Your task to perform on an android device: see tabs open on other devices in the chrome app Image 0: 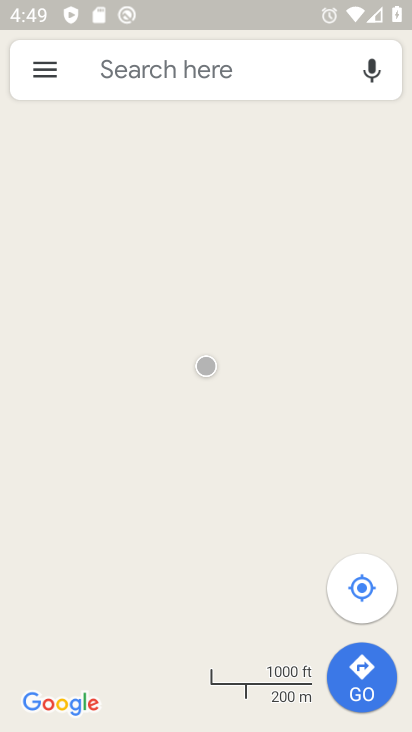
Step 0: press home button
Your task to perform on an android device: see tabs open on other devices in the chrome app Image 1: 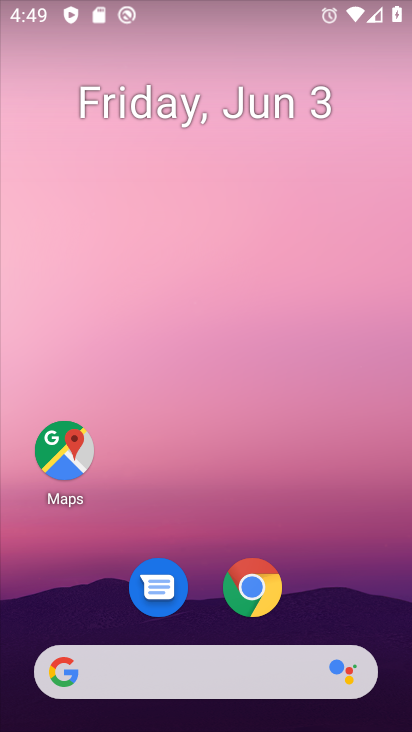
Step 1: click (272, 603)
Your task to perform on an android device: see tabs open on other devices in the chrome app Image 2: 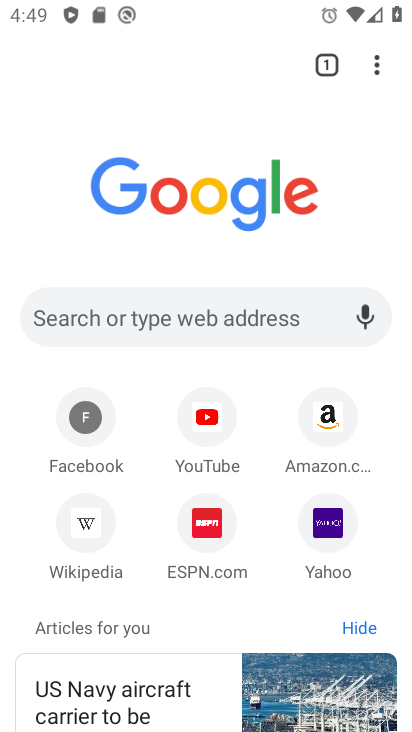
Step 2: click (379, 67)
Your task to perform on an android device: see tabs open on other devices in the chrome app Image 3: 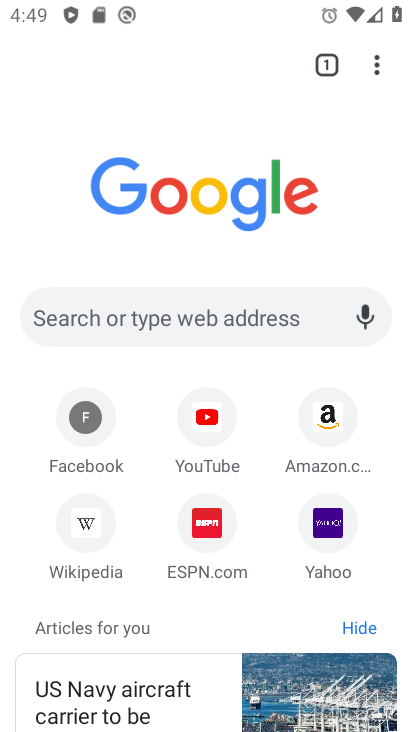
Step 3: click (373, 64)
Your task to perform on an android device: see tabs open on other devices in the chrome app Image 4: 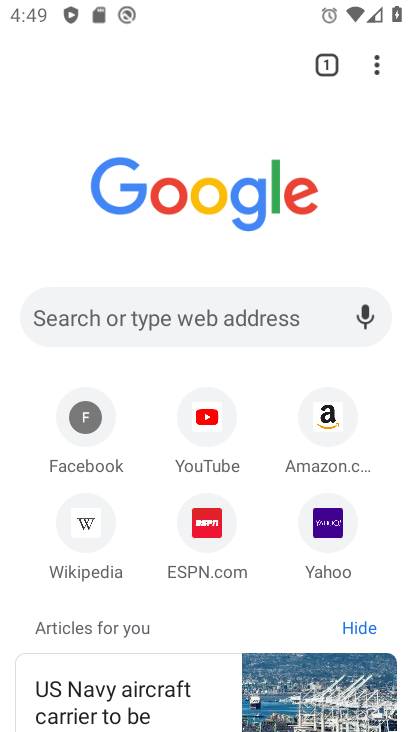
Step 4: click (372, 71)
Your task to perform on an android device: see tabs open on other devices in the chrome app Image 5: 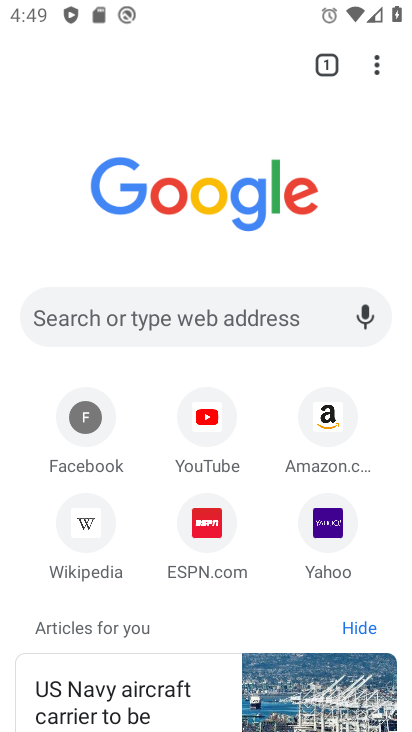
Step 5: drag from (379, 67) to (161, 311)
Your task to perform on an android device: see tabs open on other devices in the chrome app Image 6: 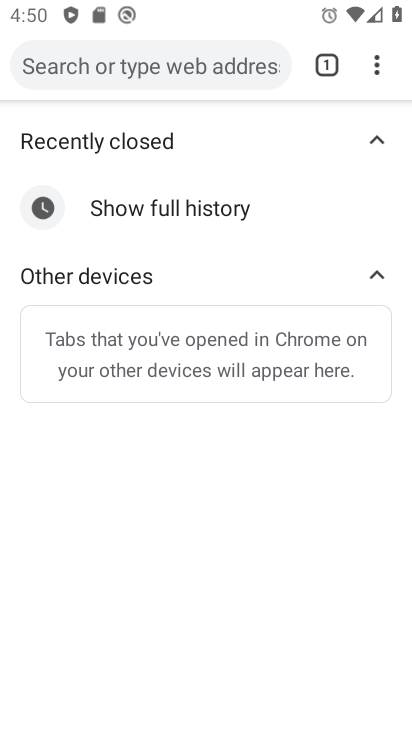
Step 6: click (339, 353)
Your task to perform on an android device: see tabs open on other devices in the chrome app Image 7: 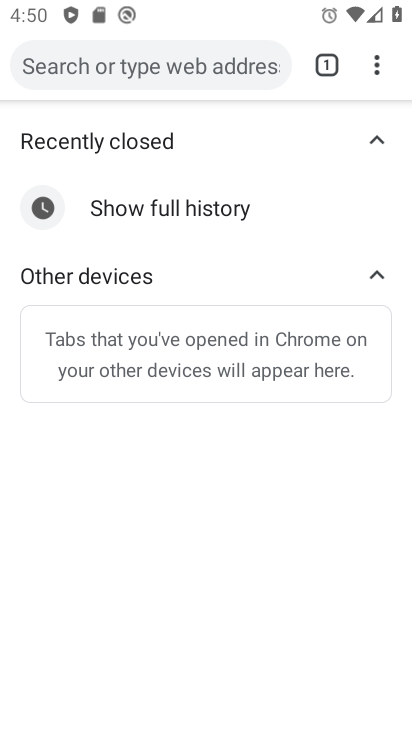
Step 7: task complete